Your task to perform on an android device: turn on bluetooth scan Image 0: 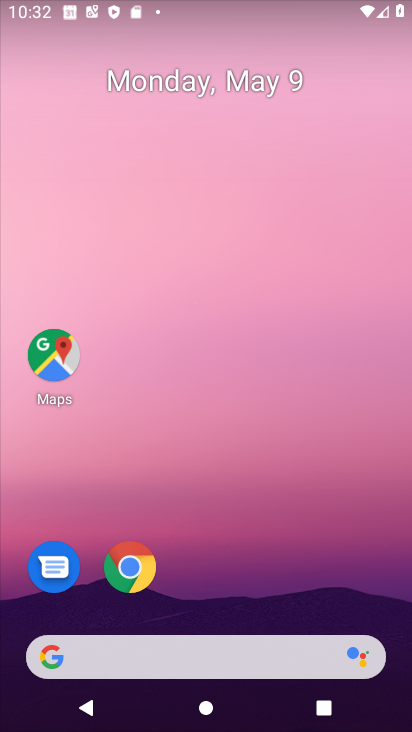
Step 0: drag from (216, 645) to (149, 142)
Your task to perform on an android device: turn on bluetooth scan Image 1: 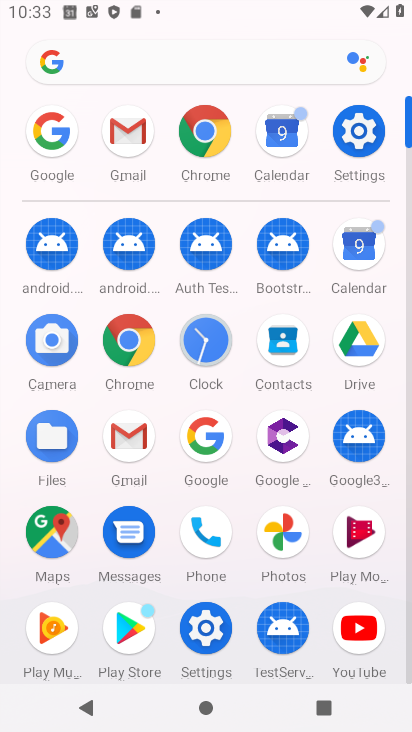
Step 1: click (370, 143)
Your task to perform on an android device: turn on bluetooth scan Image 2: 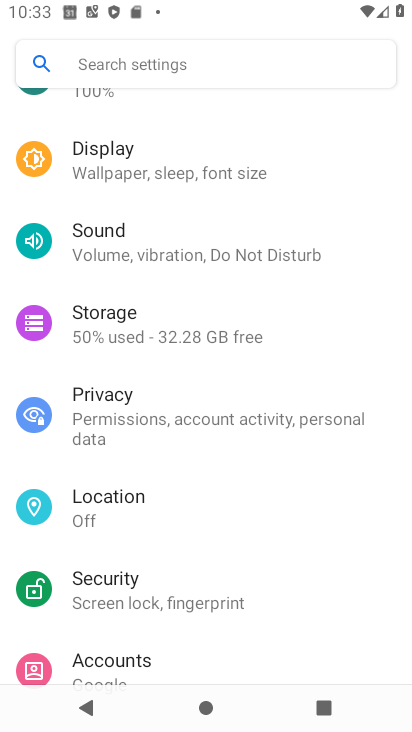
Step 2: drag from (133, 139) to (124, 484)
Your task to perform on an android device: turn on bluetooth scan Image 3: 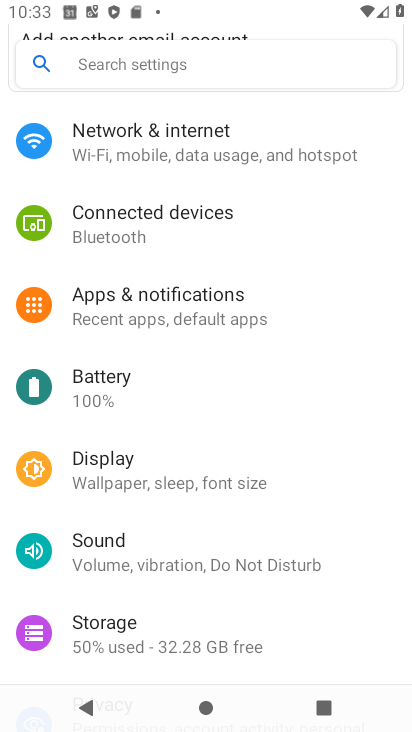
Step 3: drag from (139, 588) to (82, 43)
Your task to perform on an android device: turn on bluetooth scan Image 4: 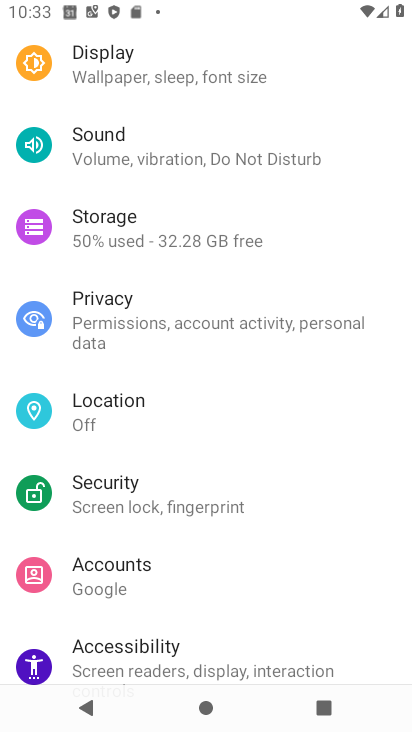
Step 4: click (127, 418)
Your task to perform on an android device: turn on bluetooth scan Image 5: 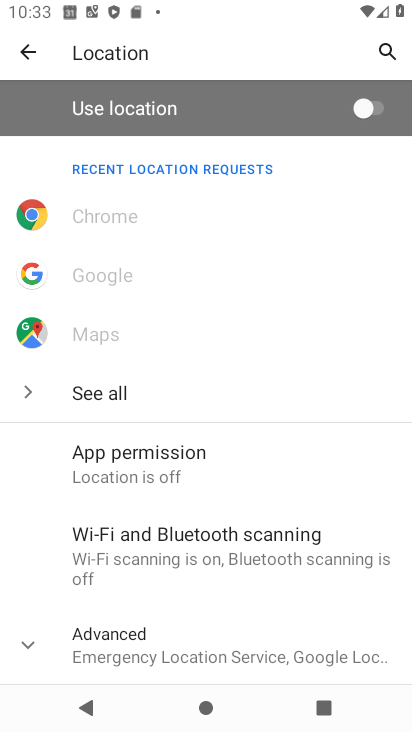
Step 5: click (198, 565)
Your task to perform on an android device: turn on bluetooth scan Image 6: 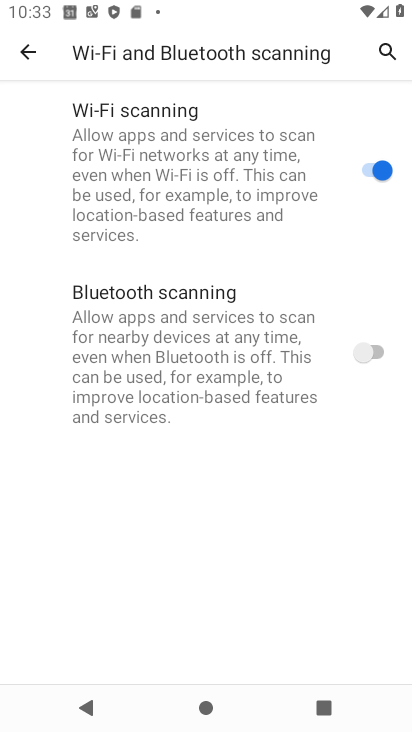
Step 6: click (356, 347)
Your task to perform on an android device: turn on bluetooth scan Image 7: 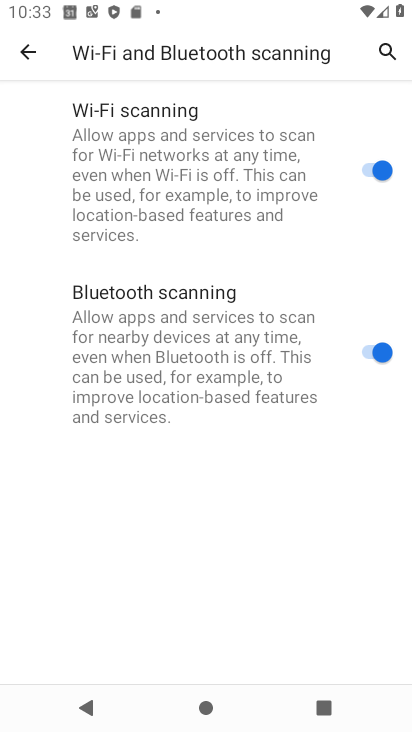
Step 7: task complete